Your task to perform on an android device: Open location settings Image 0: 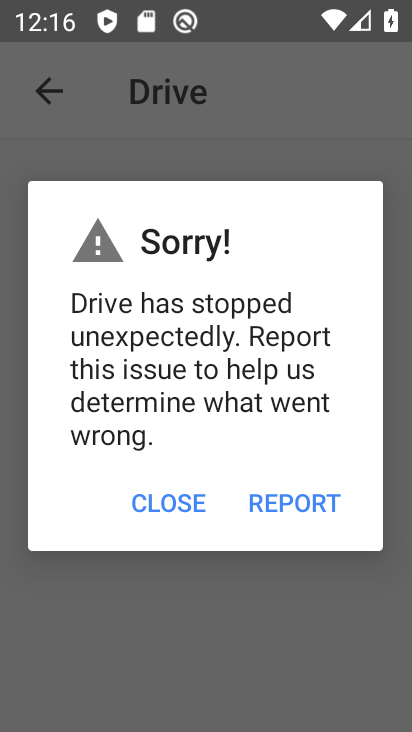
Step 0: click (67, 194)
Your task to perform on an android device: Open location settings Image 1: 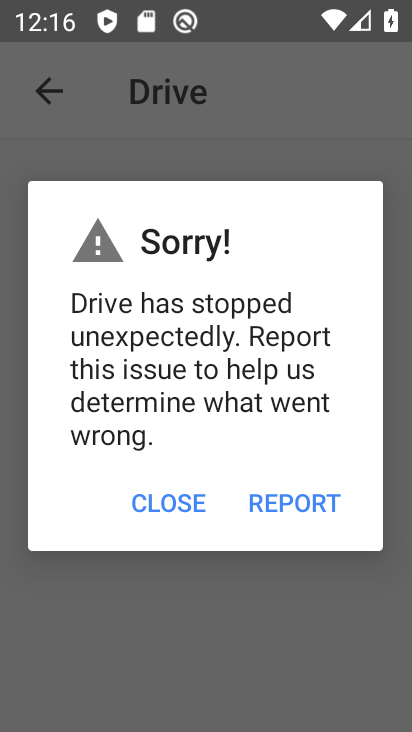
Step 1: press home button
Your task to perform on an android device: Open location settings Image 2: 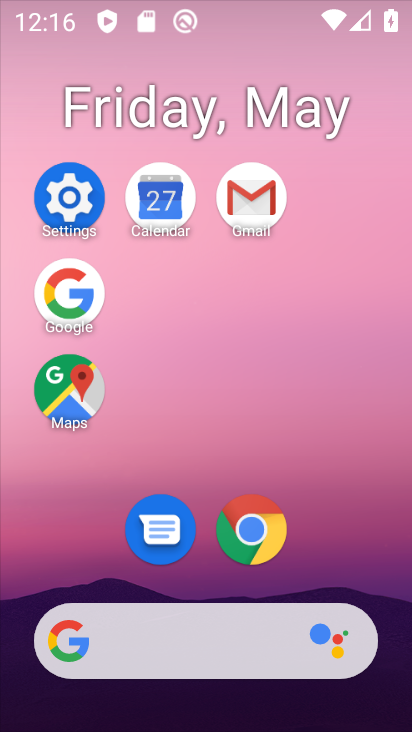
Step 2: drag from (305, 648) to (317, 198)
Your task to perform on an android device: Open location settings Image 3: 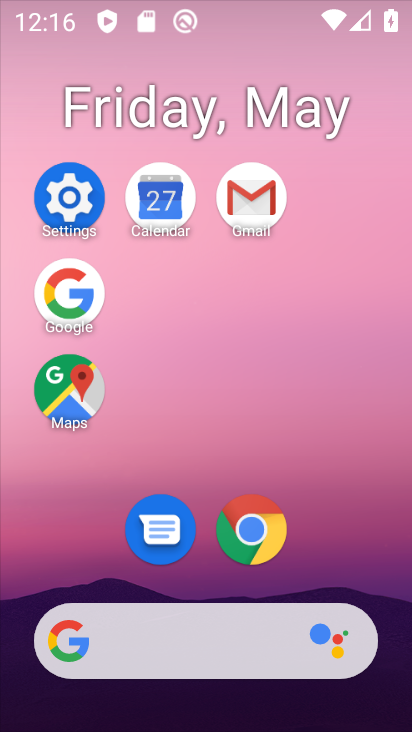
Step 3: click (60, 197)
Your task to perform on an android device: Open location settings Image 4: 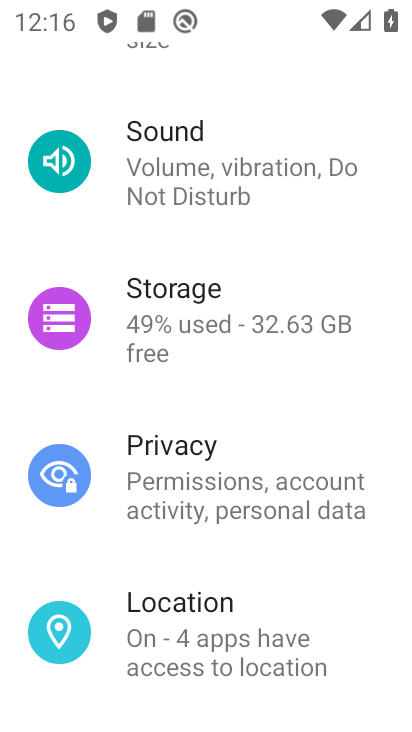
Step 4: click (267, 620)
Your task to perform on an android device: Open location settings Image 5: 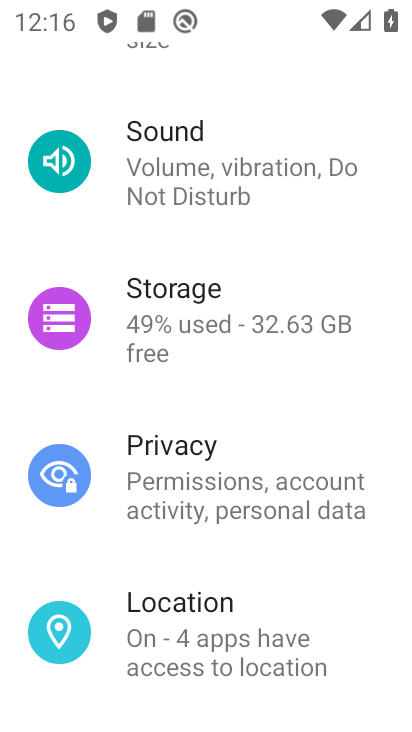
Step 5: drag from (313, 587) to (296, 249)
Your task to perform on an android device: Open location settings Image 6: 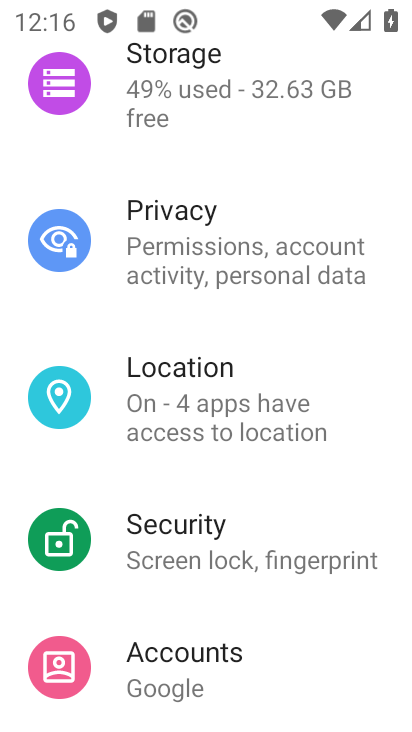
Step 6: task complete
Your task to perform on an android device: Open location settings Image 7: 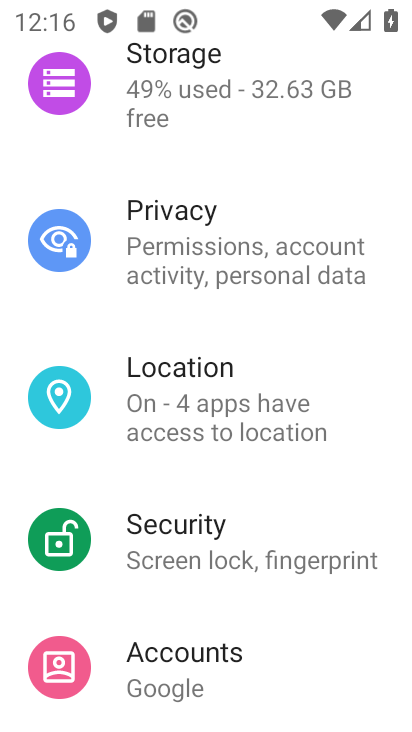
Step 7: click (250, 359)
Your task to perform on an android device: Open location settings Image 8: 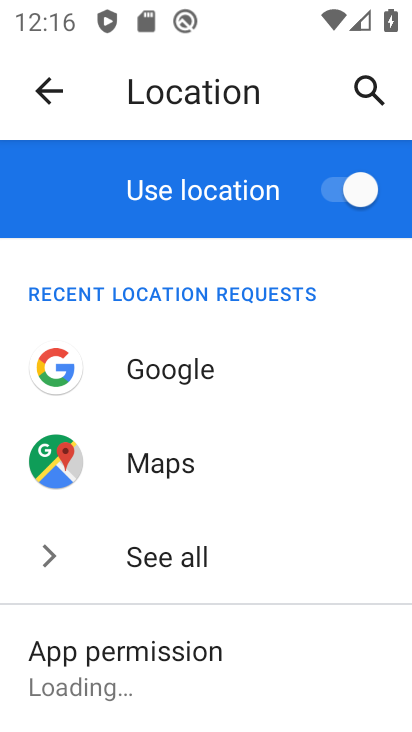
Step 8: task complete